Your task to perform on an android device: Open calendar and show me the first week of next month Image 0: 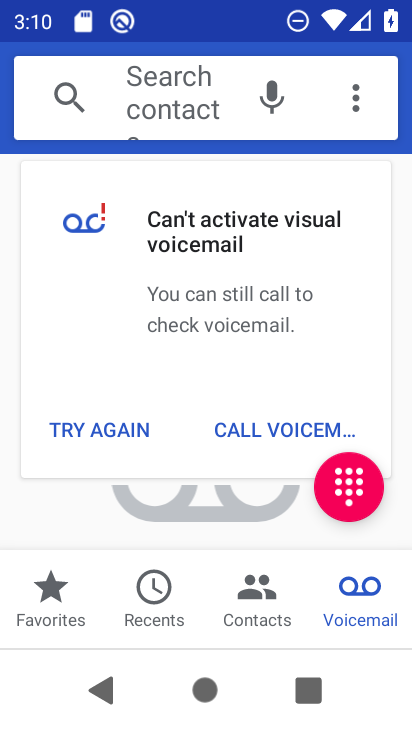
Step 0: press home button
Your task to perform on an android device: Open calendar and show me the first week of next month Image 1: 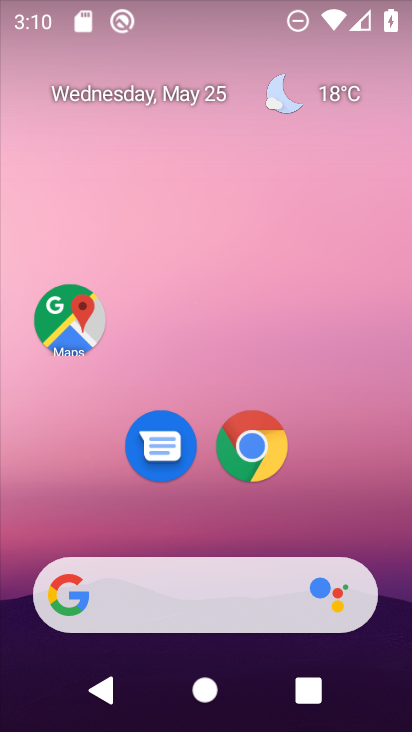
Step 1: drag from (209, 595) to (230, 230)
Your task to perform on an android device: Open calendar and show me the first week of next month Image 2: 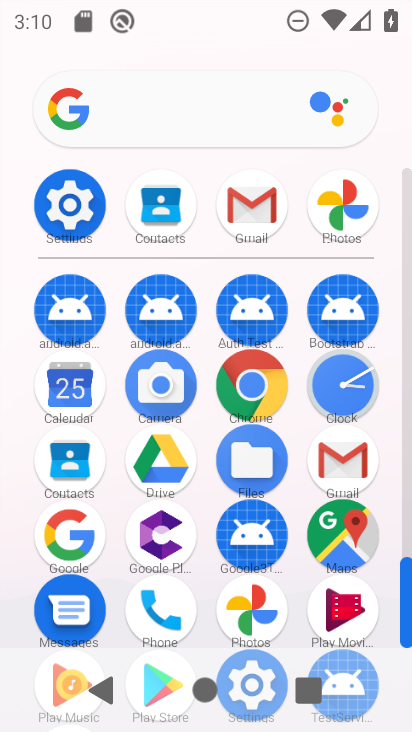
Step 2: click (75, 404)
Your task to perform on an android device: Open calendar and show me the first week of next month Image 3: 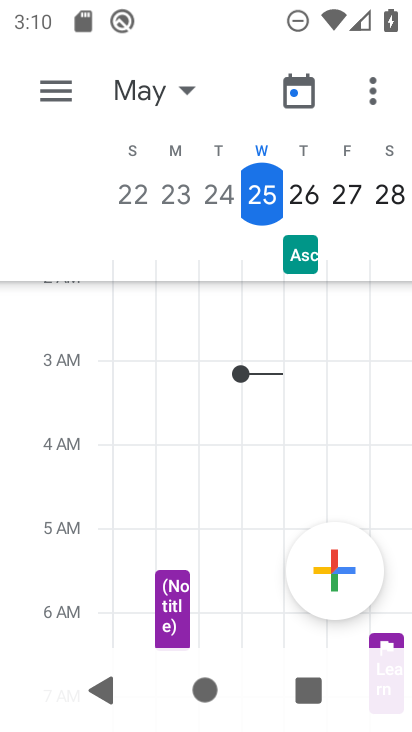
Step 3: click (58, 98)
Your task to perform on an android device: Open calendar and show me the first week of next month Image 4: 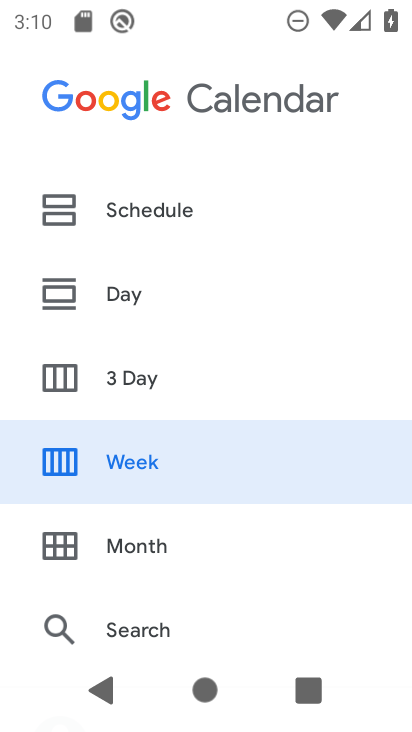
Step 4: click (144, 553)
Your task to perform on an android device: Open calendar and show me the first week of next month Image 5: 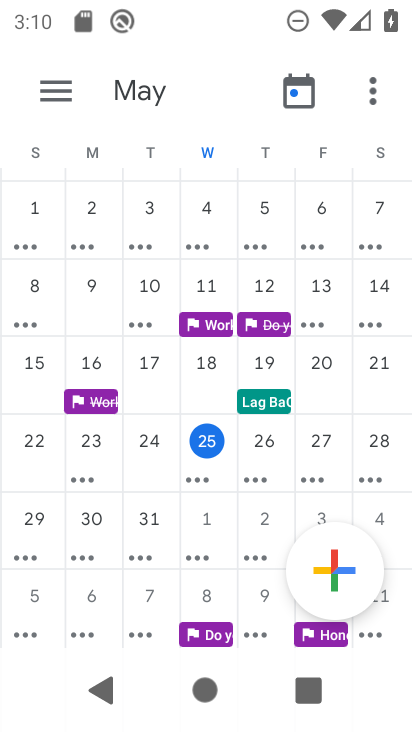
Step 5: task complete